Your task to perform on an android device: Go to Android settings Image 0: 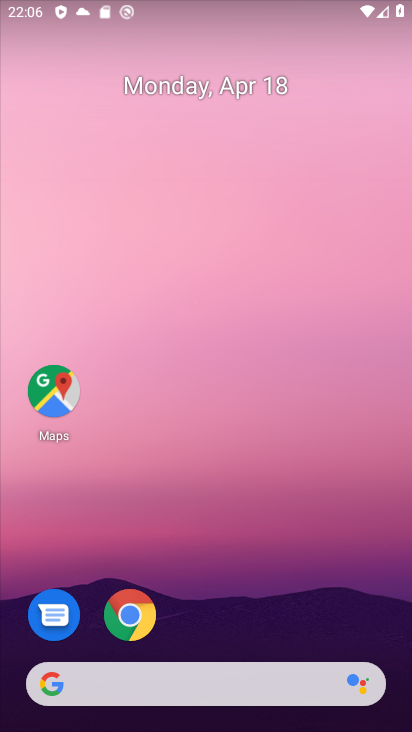
Step 0: drag from (378, 597) to (338, 1)
Your task to perform on an android device: Go to Android settings Image 1: 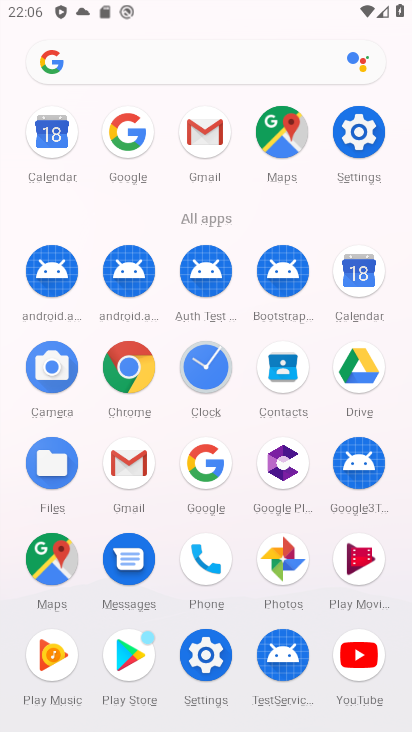
Step 1: click (361, 137)
Your task to perform on an android device: Go to Android settings Image 2: 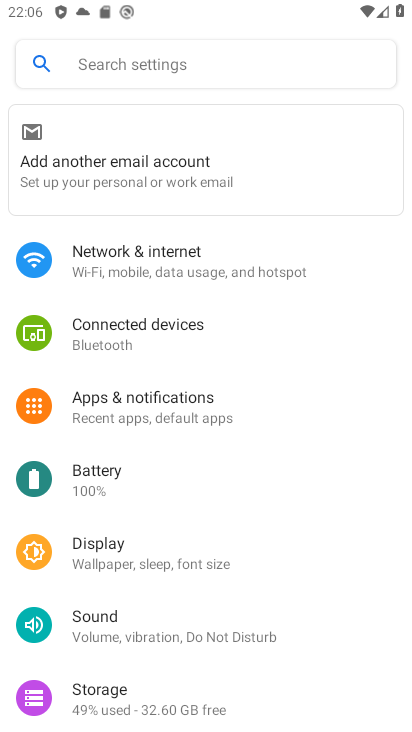
Step 2: drag from (363, 618) to (327, 208)
Your task to perform on an android device: Go to Android settings Image 3: 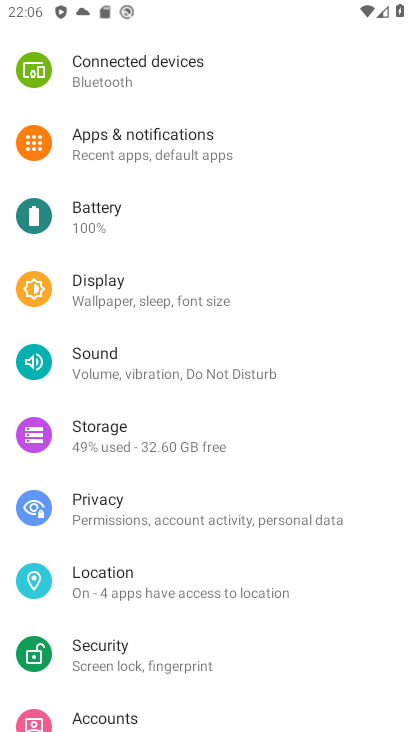
Step 3: drag from (322, 579) to (306, 268)
Your task to perform on an android device: Go to Android settings Image 4: 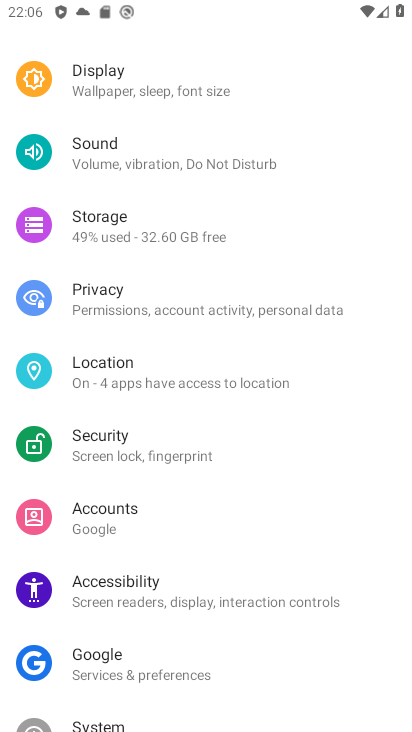
Step 4: drag from (339, 556) to (318, 221)
Your task to perform on an android device: Go to Android settings Image 5: 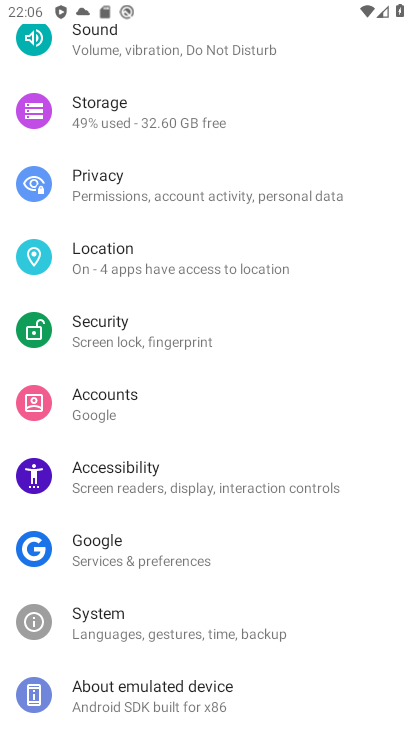
Step 5: click (131, 628)
Your task to perform on an android device: Go to Android settings Image 6: 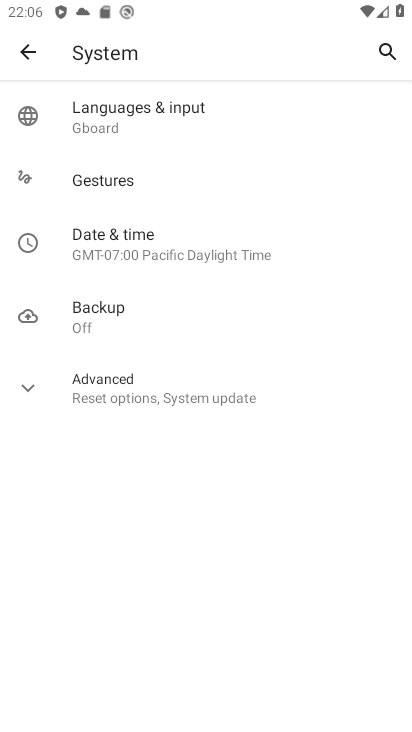
Step 6: click (31, 384)
Your task to perform on an android device: Go to Android settings Image 7: 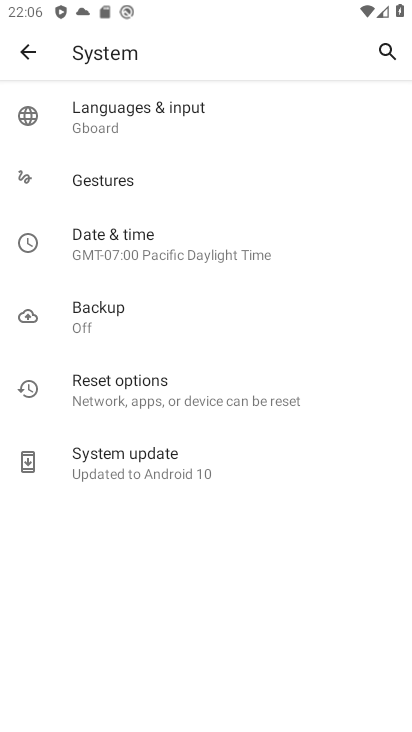
Step 7: task complete